Your task to perform on an android device: turn on wifi Image 0: 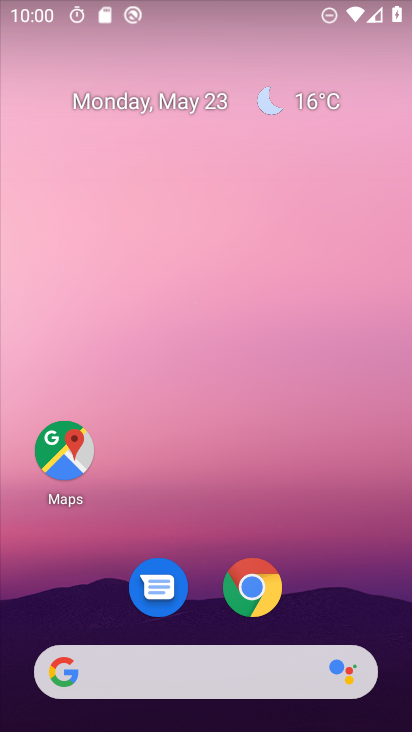
Step 0: drag from (120, 13) to (201, 532)
Your task to perform on an android device: turn on wifi Image 1: 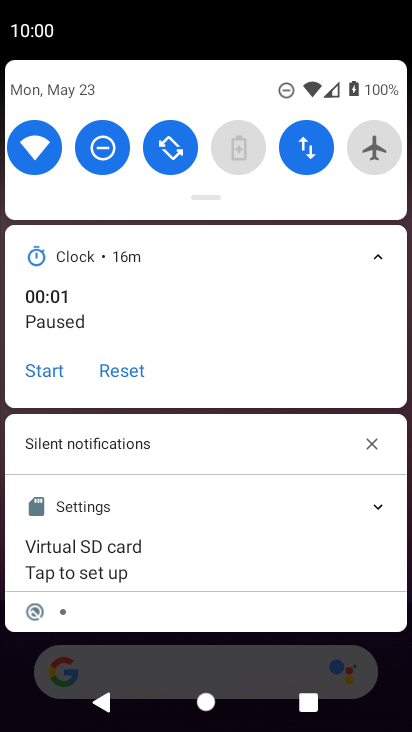
Step 1: task complete